Your task to perform on an android device: Open my contact list Image 0: 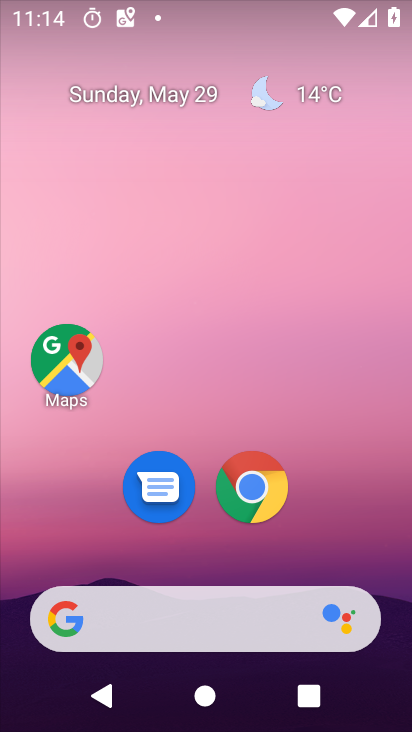
Step 0: drag from (387, 605) to (285, 131)
Your task to perform on an android device: Open my contact list Image 1: 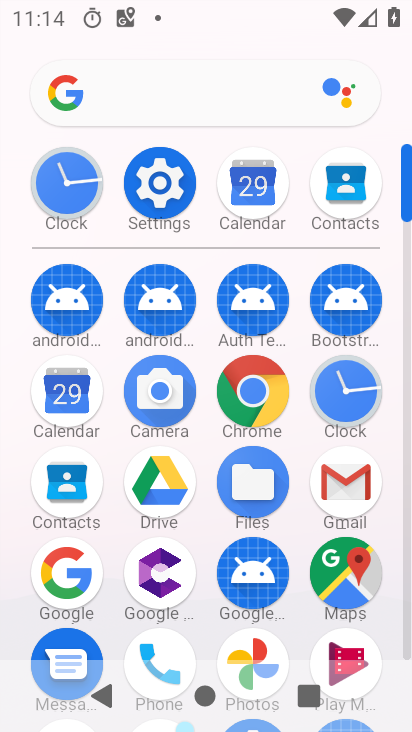
Step 1: click (57, 480)
Your task to perform on an android device: Open my contact list Image 2: 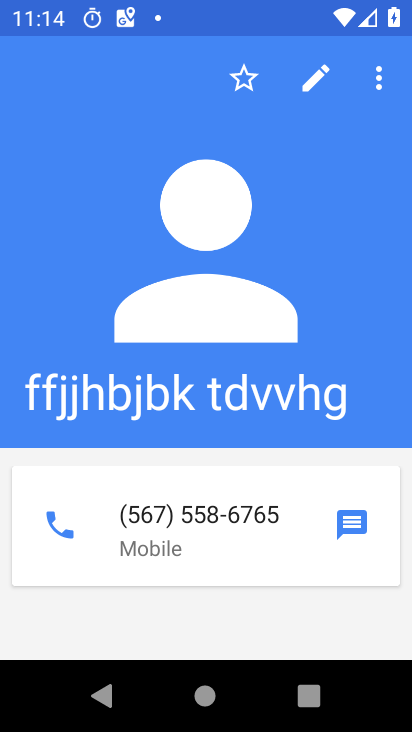
Step 2: press back button
Your task to perform on an android device: Open my contact list Image 3: 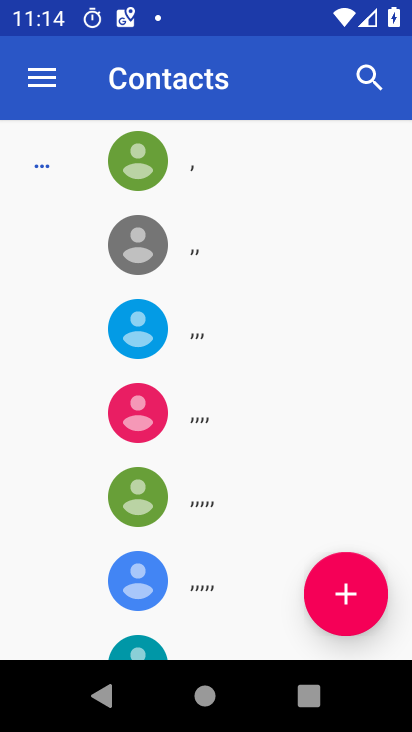
Step 3: click (319, 589)
Your task to perform on an android device: Open my contact list Image 4: 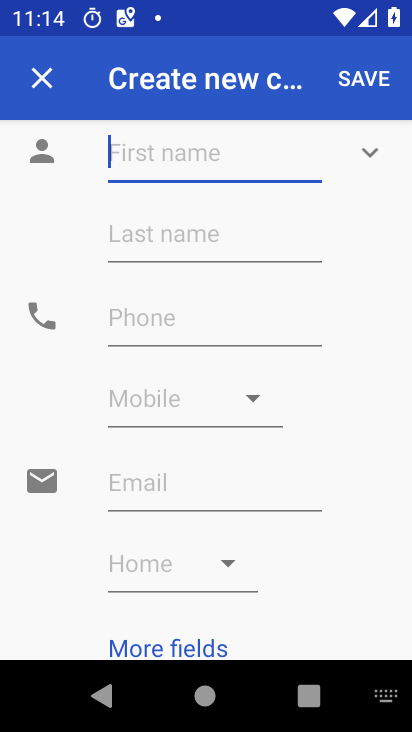
Step 4: type "sdfghjk"
Your task to perform on an android device: Open my contact list Image 5: 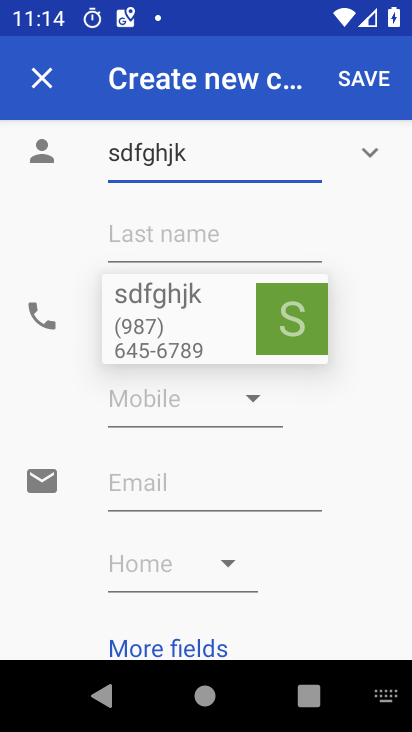
Step 5: click (148, 239)
Your task to perform on an android device: Open my contact list Image 6: 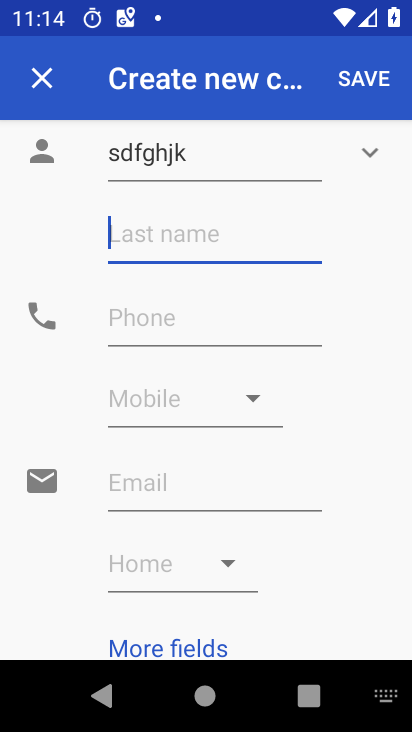
Step 6: type "rgsdvbnm"
Your task to perform on an android device: Open my contact list Image 7: 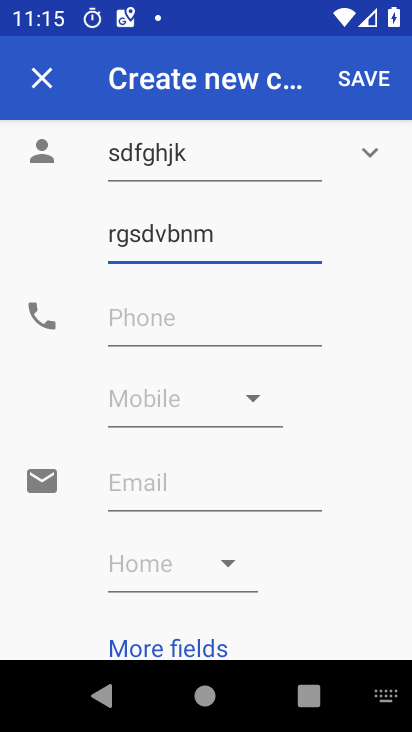
Step 7: click (164, 318)
Your task to perform on an android device: Open my contact list Image 8: 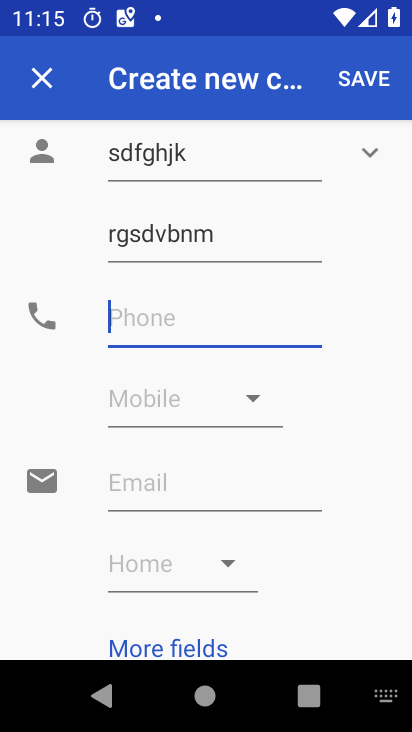
Step 8: type "345123465423"
Your task to perform on an android device: Open my contact list Image 9: 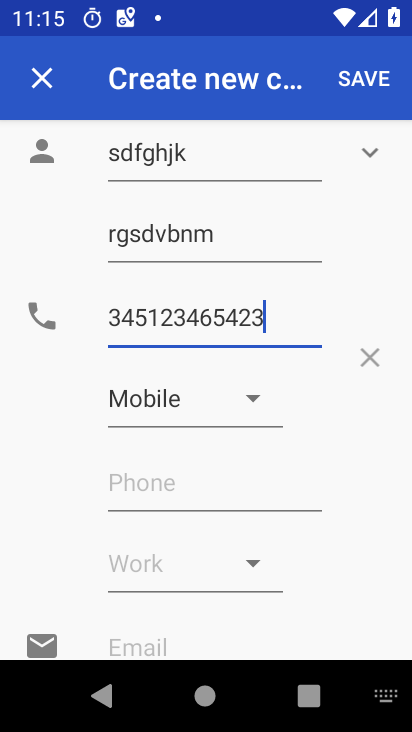
Step 9: click (358, 79)
Your task to perform on an android device: Open my contact list Image 10: 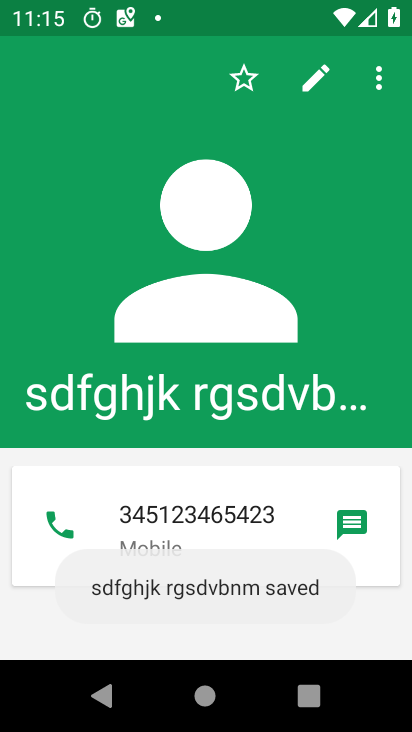
Step 10: task complete